Your task to perform on an android device: delete browsing data in the chrome app Image 0: 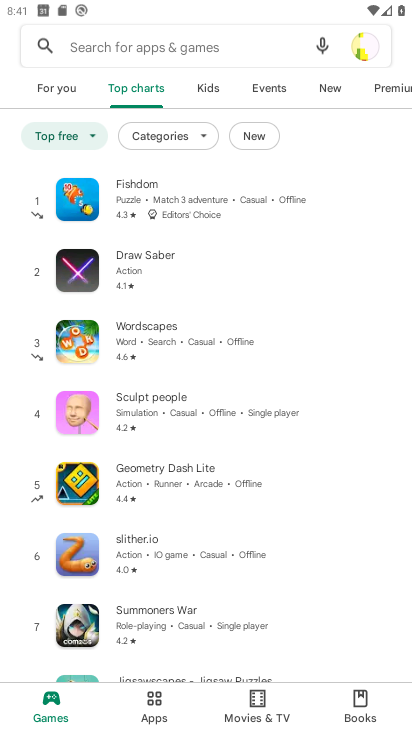
Step 0: press home button
Your task to perform on an android device: delete browsing data in the chrome app Image 1: 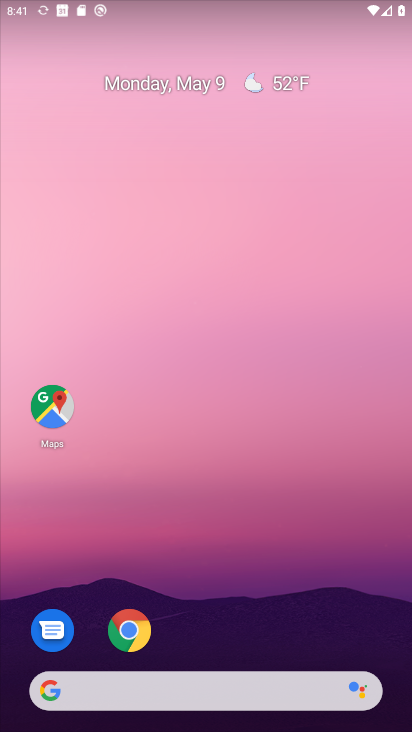
Step 1: click (137, 636)
Your task to perform on an android device: delete browsing data in the chrome app Image 2: 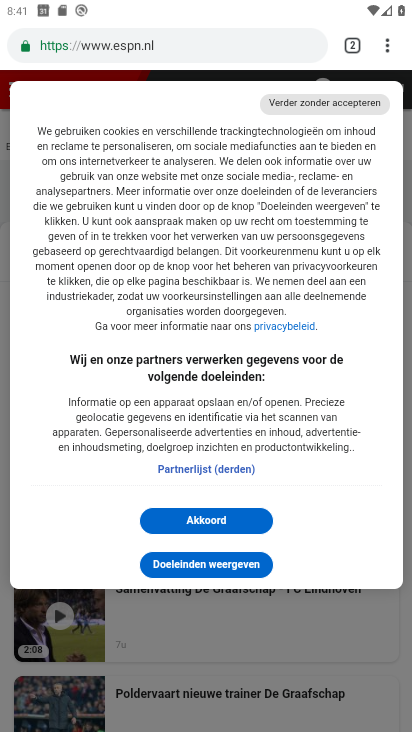
Step 2: click (384, 51)
Your task to perform on an android device: delete browsing data in the chrome app Image 3: 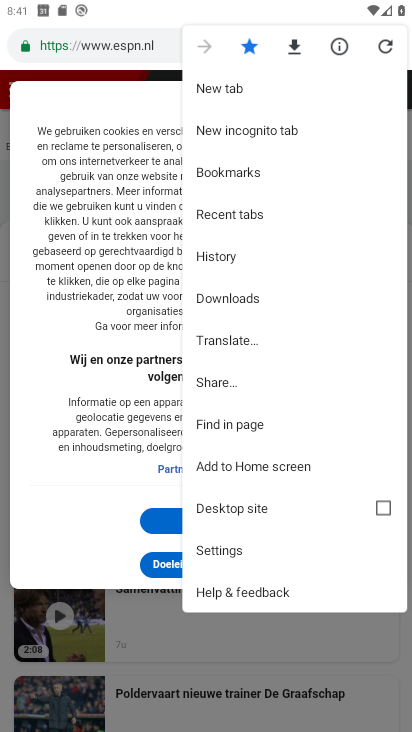
Step 3: click (219, 258)
Your task to perform on an android device: delete browsing data in the chrome app Image 4: 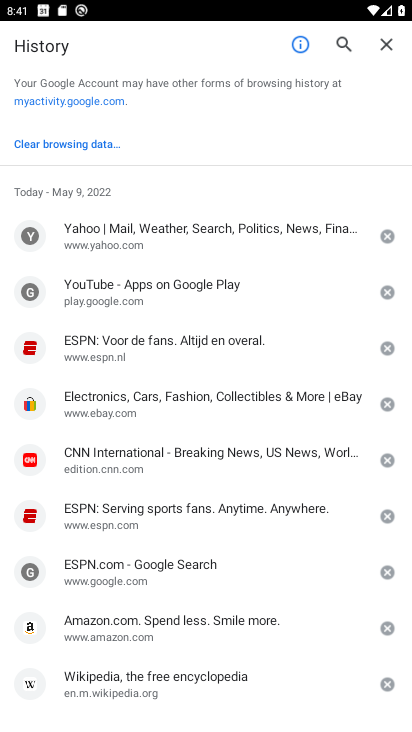
Step 4: click (57, 149)
Your task to perform on an android device: delete browsing data in the chrome app Image 5: 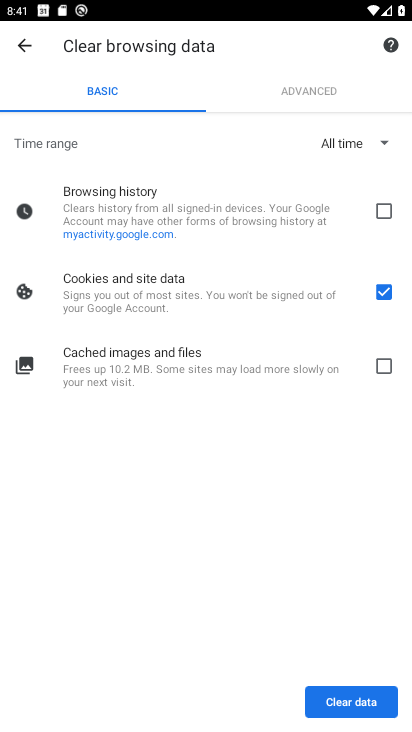
Step 5: click (376, 211)
Your task to perform on an android device: delete browsing data in the chrome app Image 6: 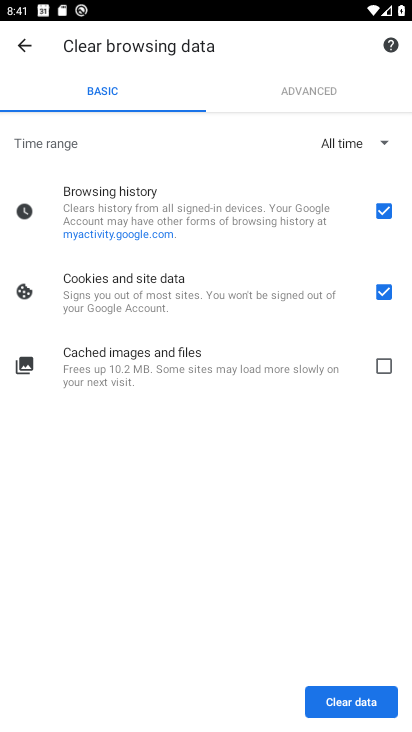
Step 6: click (383, 368)
Your task to perform on an android device: delete browsing data in the chrome app Image 7: 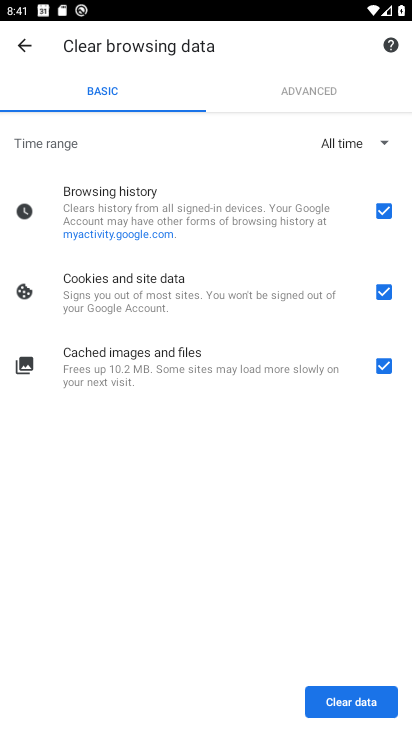
Step 7: click (344, 692)
Your task to perform on an android device: delete browsing data in the chrome app Image 8: 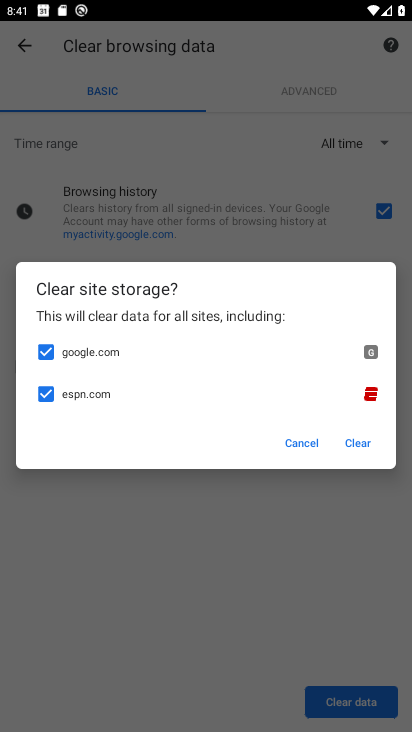
Step 8: click (360, 445)
Your task to perform on an android device: delete browsing data in the chrome app Image 9: 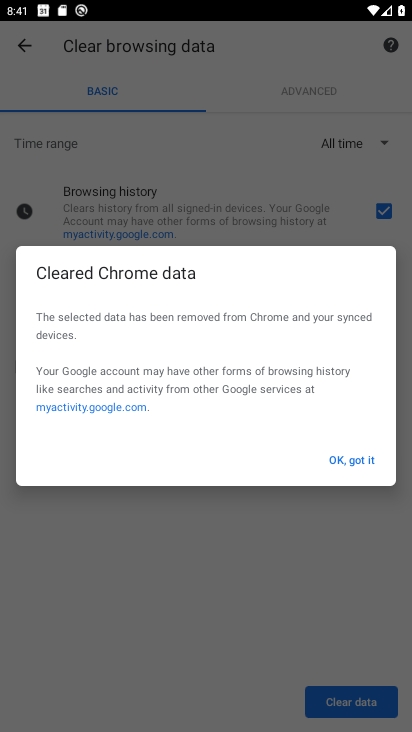
Step 9: click (353, 458)
Your task to perform on an android device: delete browsing data in the chrome app Image 10: 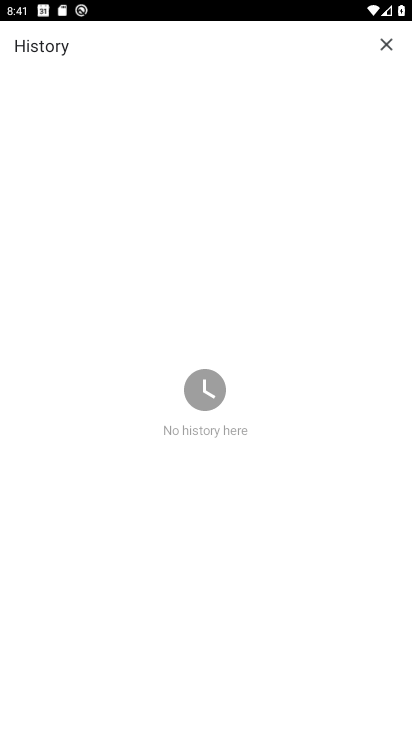
Step 10: task complete